Your task to perform on an android device: turn off translation in the chrome app Image 0: 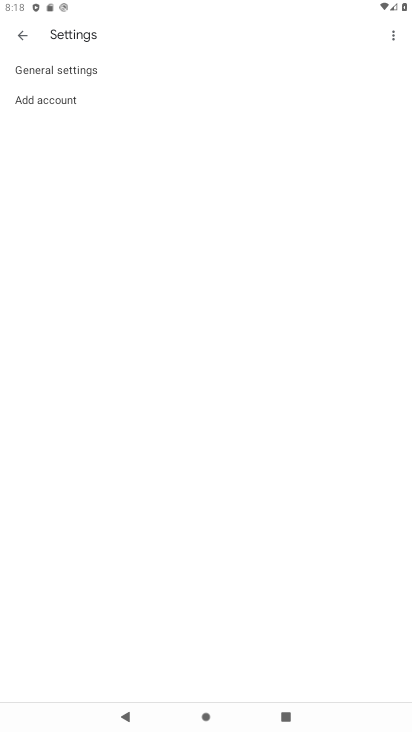
Step 0: press home button
Your task to perform on an android device: turn off translation in the chrome app Image 1: 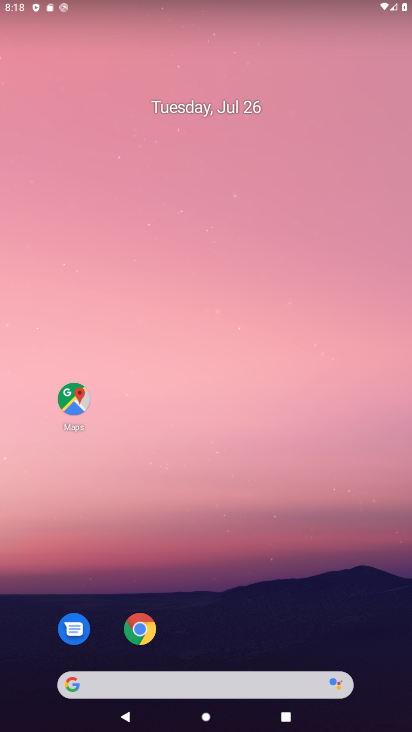
Step 1: click (151, 640)
Your task to perform on an android device: turn off translation in the chrome app Image 2: 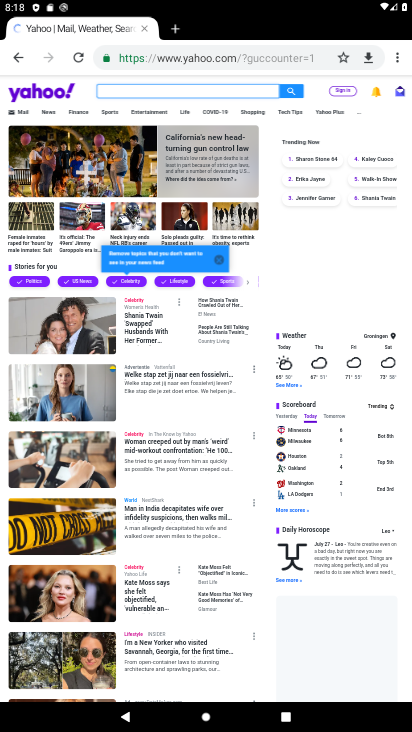
Step 2: click (399, 66)
Your task to perform on an android device: turn off translation in the chrome app Image 3: 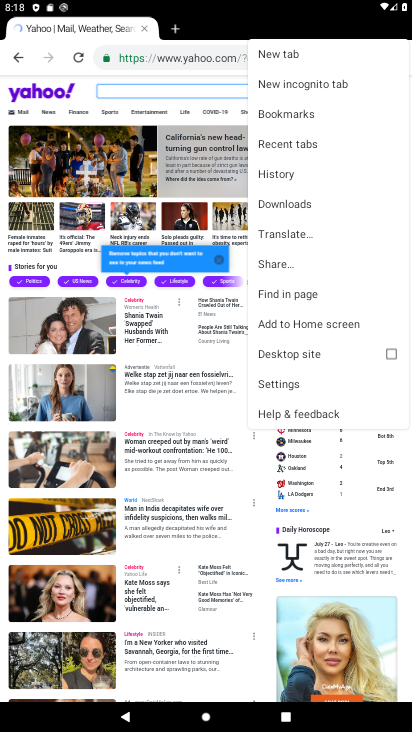
Step 3: click (278, 384)
Your task to perform on an android device: turn off translation in the chrome app Image 4: 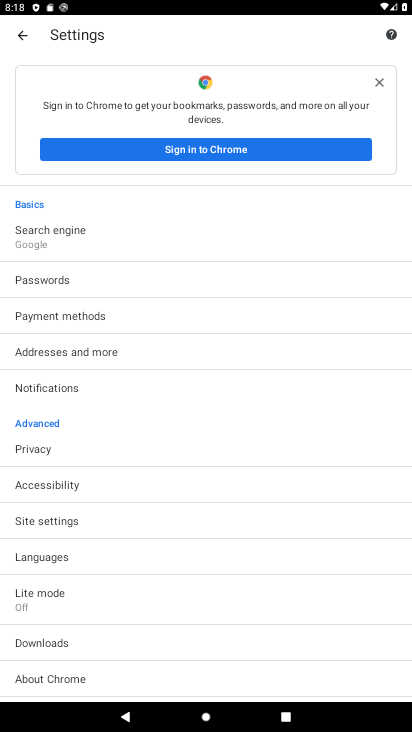
Step 4: click (49, 560)
Your task to perform on an android device: turn off translation in the chrome app Image 5: 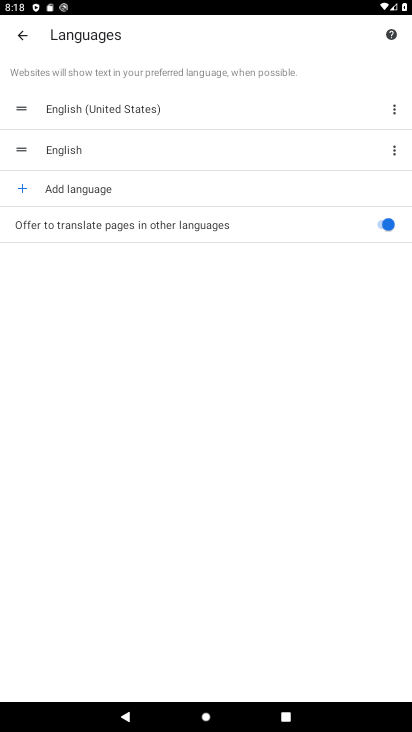
Step 5: click (378, 223)
Your task to perform on an android device: turn off translation in the chrome app Image 6: 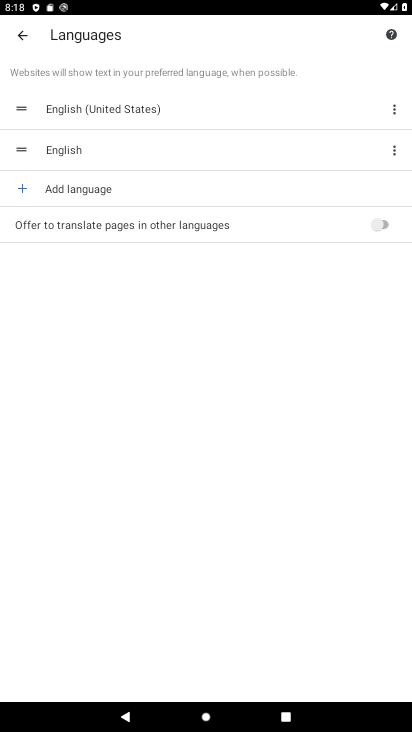
Step 6: task complete